Your task to perform on an android device: turn off notifications in google photos Image 0: 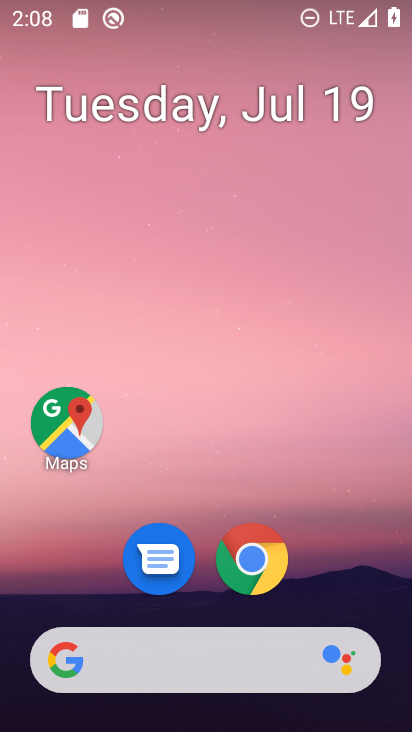
Step 0: drag from (242, 691) to (278, 165)
Your task to perform on an android device: turn off notifications in google photos Image 1: 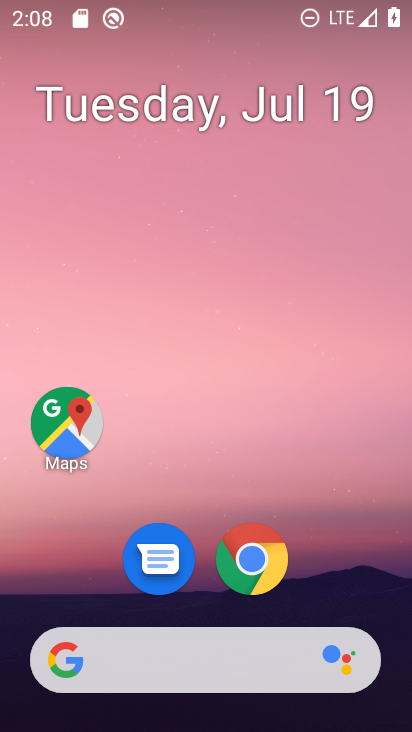
Step 1: drag from (183, 672) to (374, 104)
Your task to perform on an android device: turn off notifications in google photos Image 2: 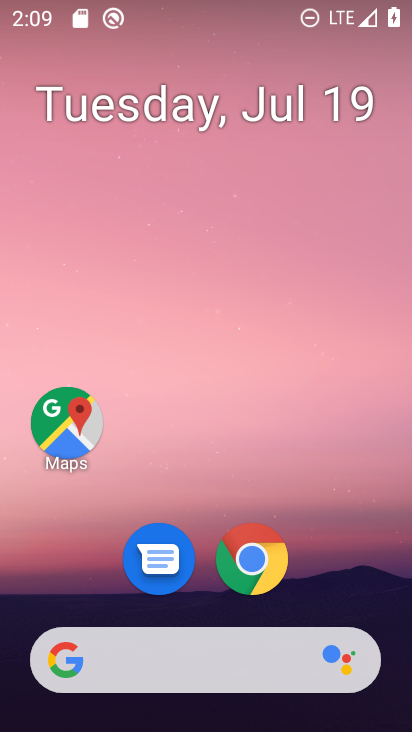
Step 2: drag from (212, 638) to (251, 86)
Your task to perform on an android device: turn off notifications in google photos Image 3: 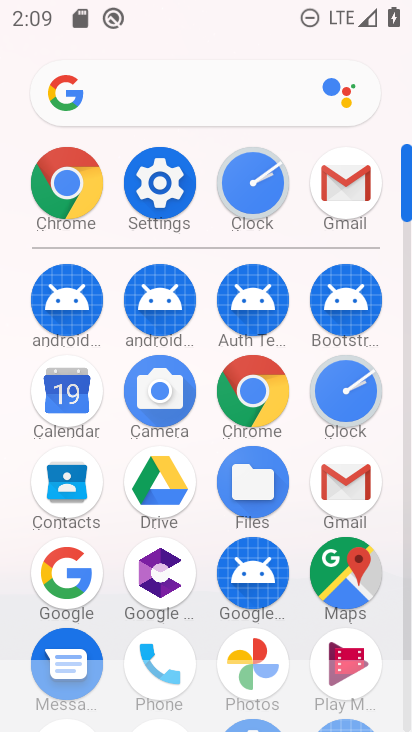
Step 3: drag from (275, 512) to (225, 134)
Your task to perform on an android device: turn off notifications in google photos Image 4: 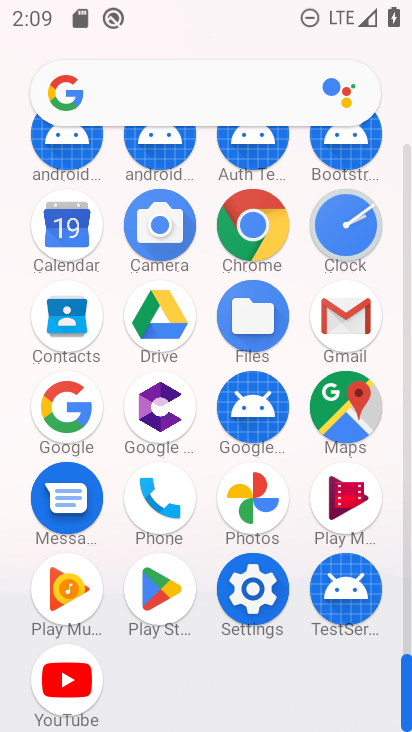
Step 4: click (272, 512)
Your task to perform on an android device: turn off notifications in google photos Image 5: 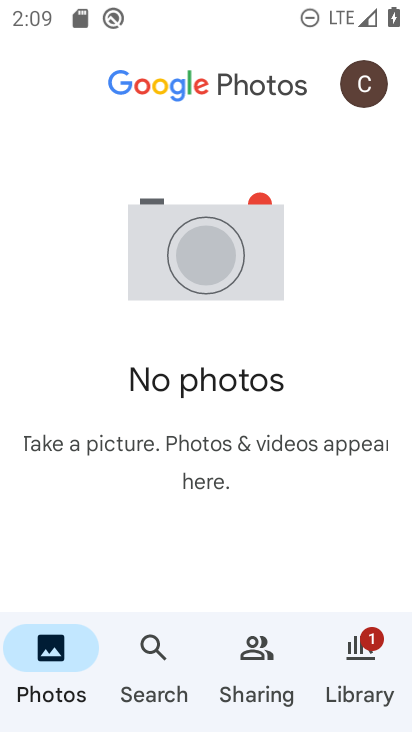
Step 5: click (369, 78)
Your task to perform on an android device: turn off notifications in google photos Image 6: 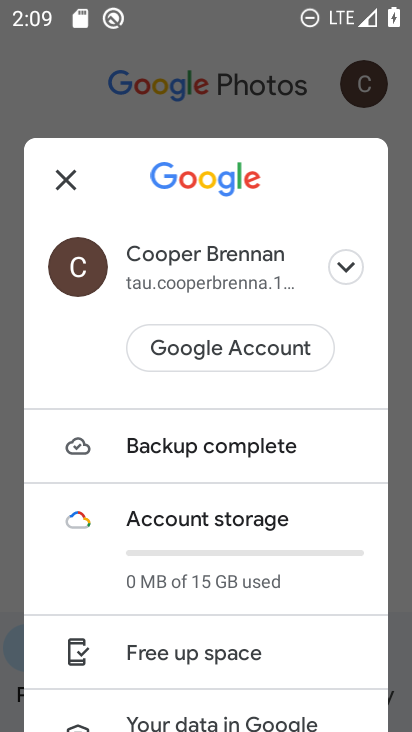
Step 6: drag from (216, 642) to (253, 249)
Your task to perform on an android device: turn off notifications in google photos Image 7: 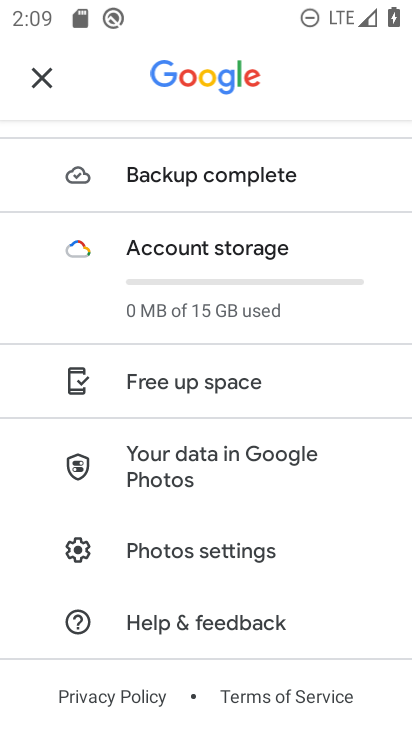
Step 7: drag from (189, 560) to (212, 192)
Your task to perform on an android device: turn off notifications in google photos Image 8: 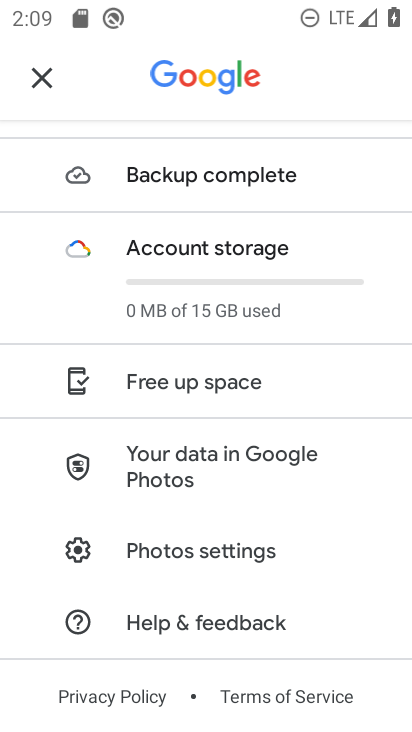
Step 8: click (159, 555)
Your task to perform on an android device: turn off notifications in google photos Image 9: 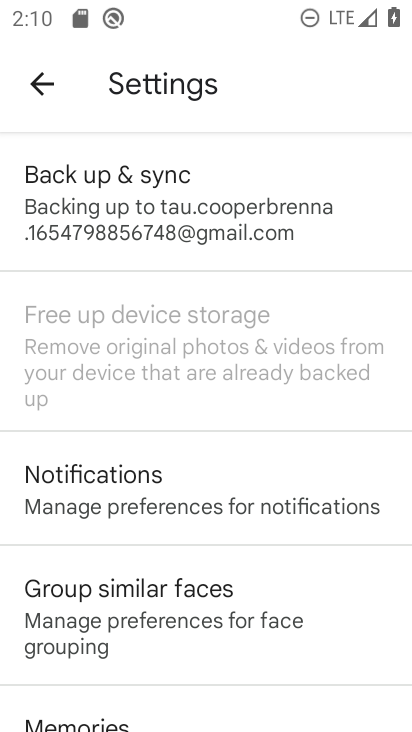
Step 9: click (124, 485)
Your task to perform on an android device: turn off notifications in google photos Image 10: 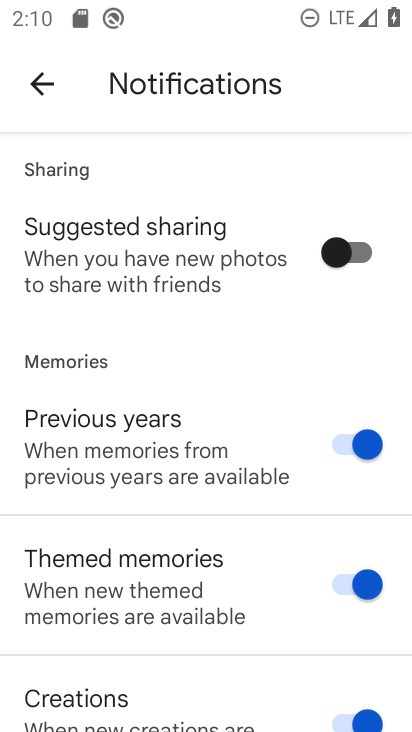
Step 10: drag from (125, 495) to (159, 92)
Your task to perform on an android device: turn off notifications in google photos Image 11: 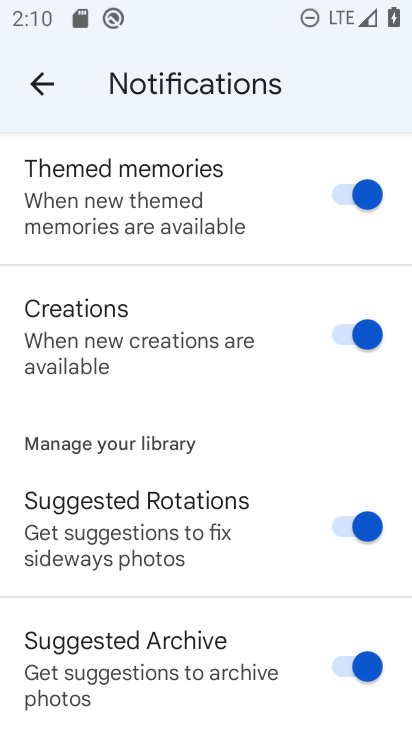
Step 11: drag from (145, 599) to (185, 0)
Your task to perform on an android device: turn off notifications in google photos Image 12: 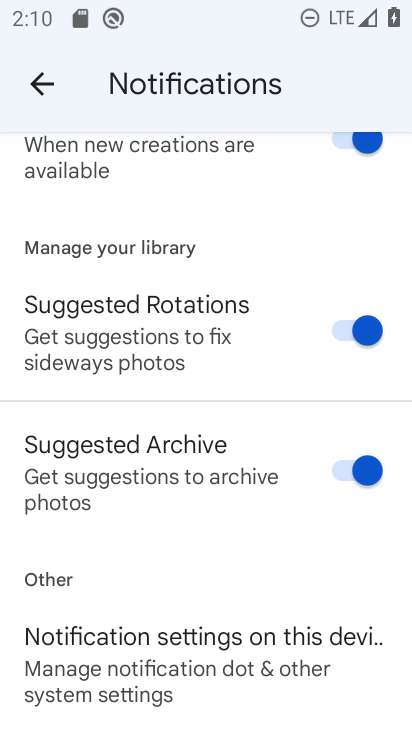
Step 12: click (150, 634)
Your task to perform on an android device: turn off notifications in google photos Image 13: 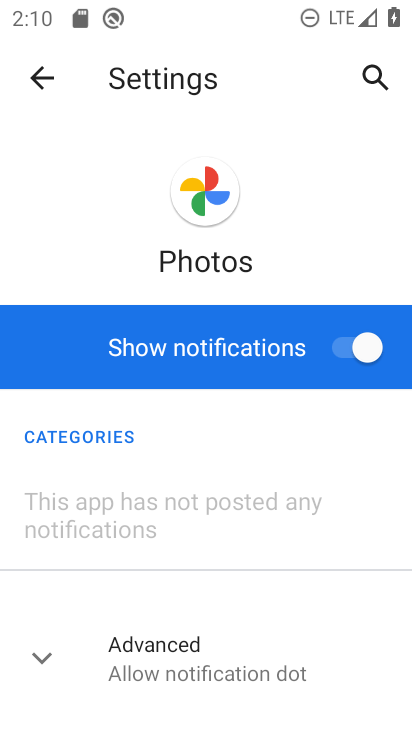
Step 13: click (320, 363)
Your task to perform on an android device: turn off notifications in google photos Image 14: 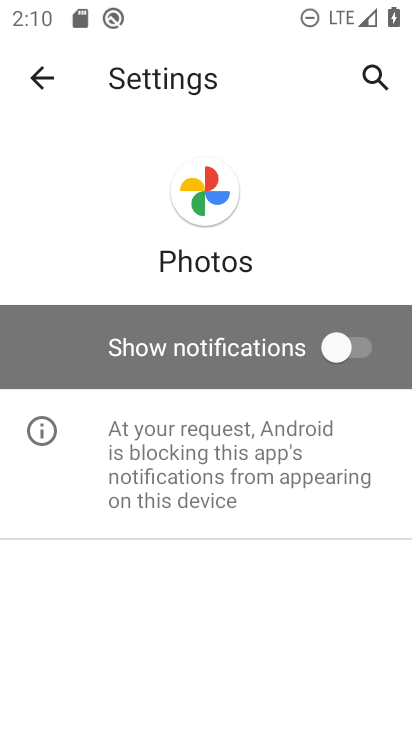
Step 14: task complete